Your task to perform on an android device: Open the web browser Image 0: 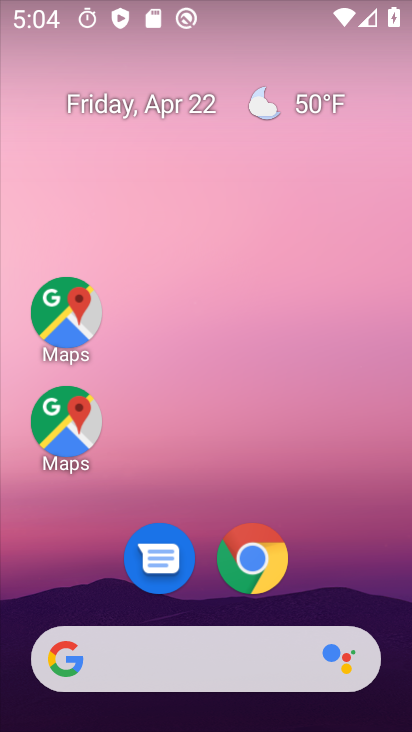
Step 0: click (266, 578)
Your task to perform on an android device: Open the web browser Image 1: 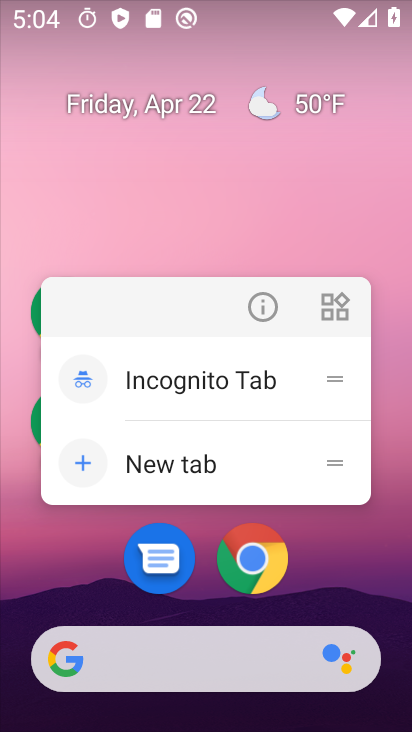
Step 1: click (259, 562)
Your task to perform on an android device: Open the web browser Image 2: 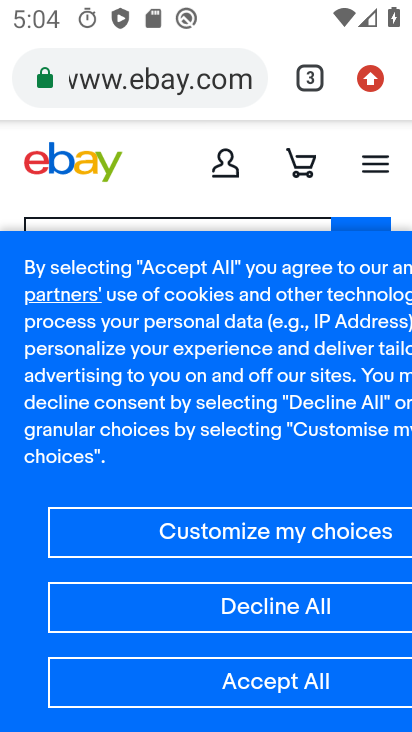
Step 2: task complete